Your task to perform on an android device: Open Google Maps and go to "Timeline" Image 0: 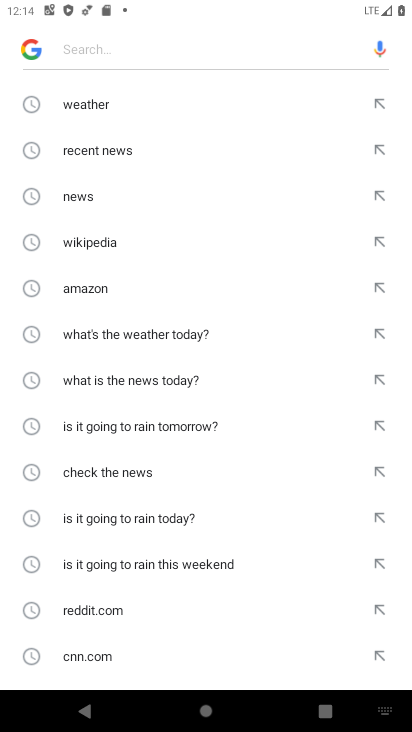
Step 0: press home button
Your task to perform on an android device: Open Google Maps and go to "Timeline" Image 1: 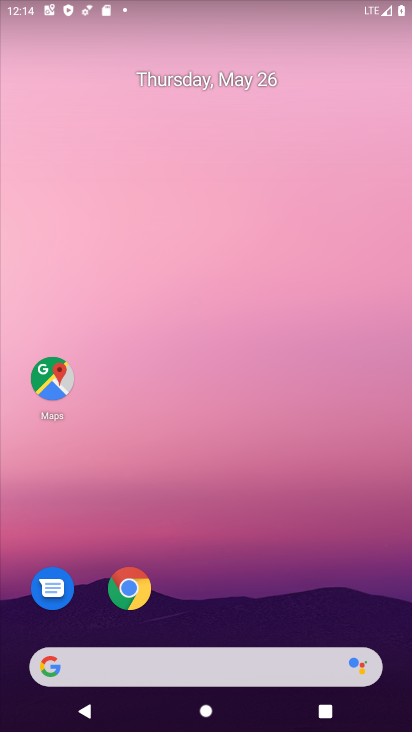
Step 1: drag from (230, 543) to (197, 43)
Your task to perform on an android device: Open Google Maps and go to "Timeline" Image 2: 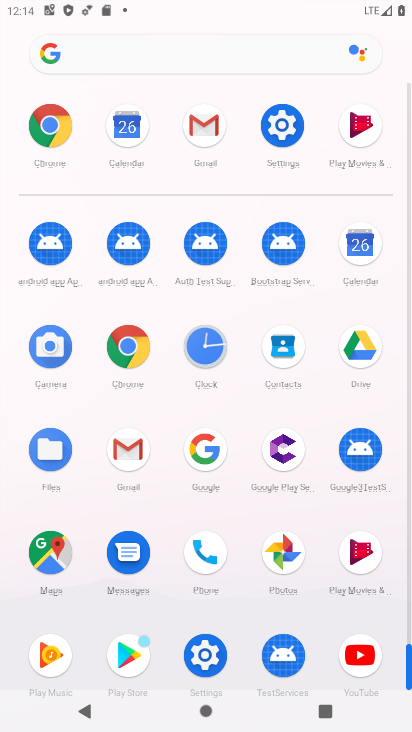
Step 2: drag from (14, 595) to (16, 272)
Your task to perform on an android device: Open Google Maps and go to "Timeline" Image 3: 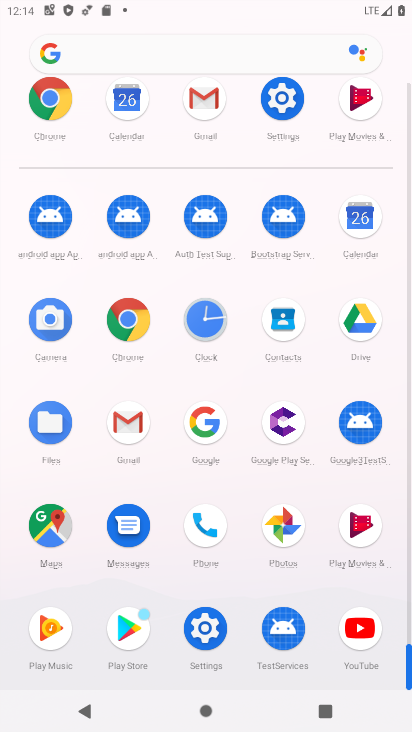
Step 3: click (46, 522)
Your task to perform on an android device: Open Google Maps and go to "Timeline" Image 4: 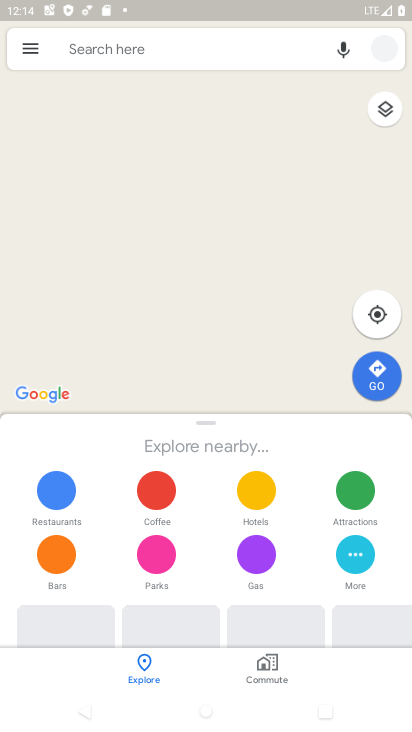
Step 4: click (28, 45)
Your task to perform on an android device: Open Google Maps and go to "Timeline" Image 5: 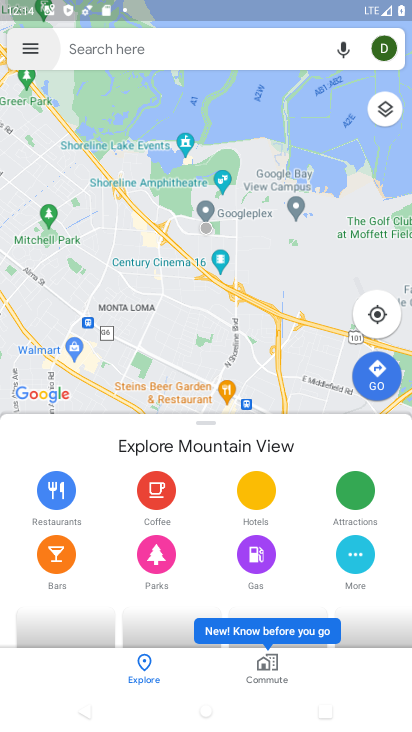
Step 5: click (28, 45)
Your task to perform on an android device: Open Google Maps and go to "Timeline" Image 6: 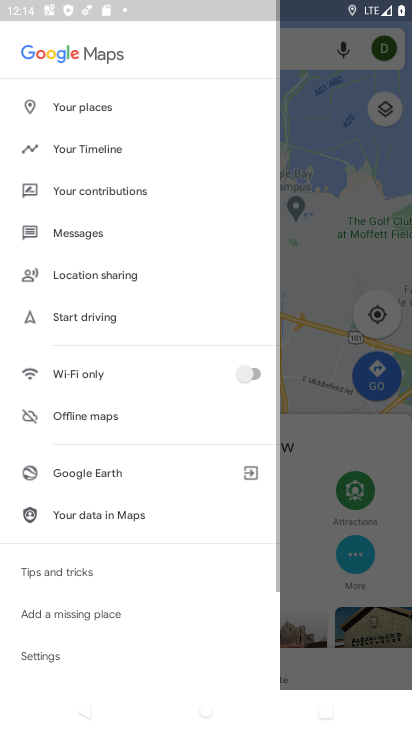
Step 6: click (101, 140)
Your task to perform on an android device: Open Google Maps and go to "Timeline" Image 7: 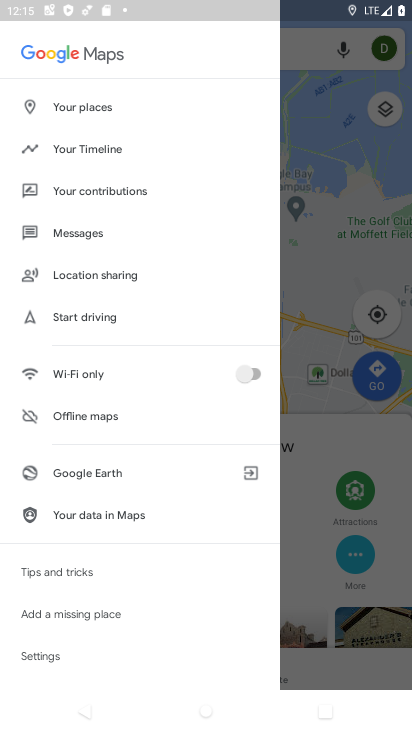
Step 7: click (92, 146)
Your task to perform on an android device: Open Google Maps and go to "Timeline" Image 8: 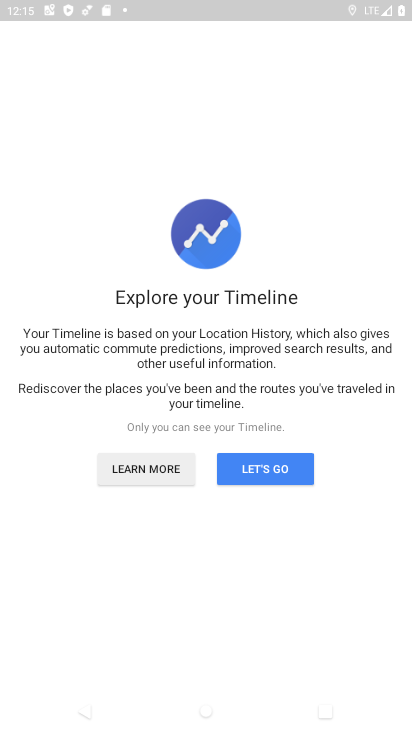
Step 8: click (282, 470)
Your task to perform on an android device: Open Google Maps and go to "Timeline" Image 9: 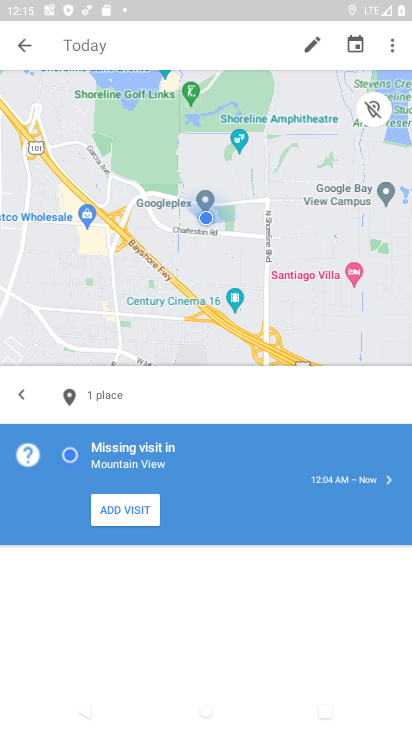
Step 9: task complete